Your task to perform on an android device: delete the emails in spam in the gmail app Image 0: 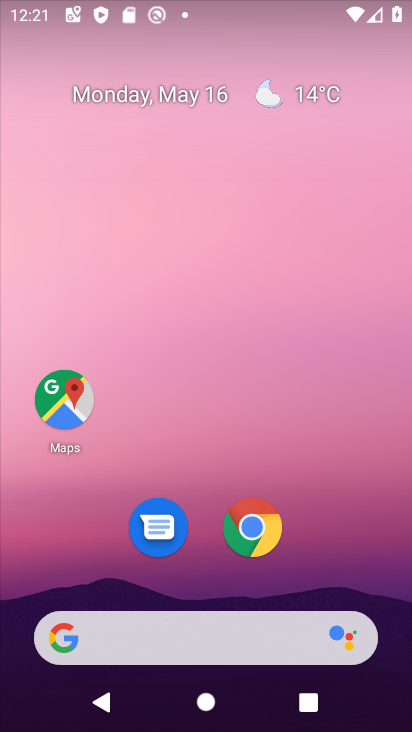
Step 0: drag from (200, 594) to (248, 184)
Your task to perform on an android device: delete the emails in spam in the gmail app Image 1: 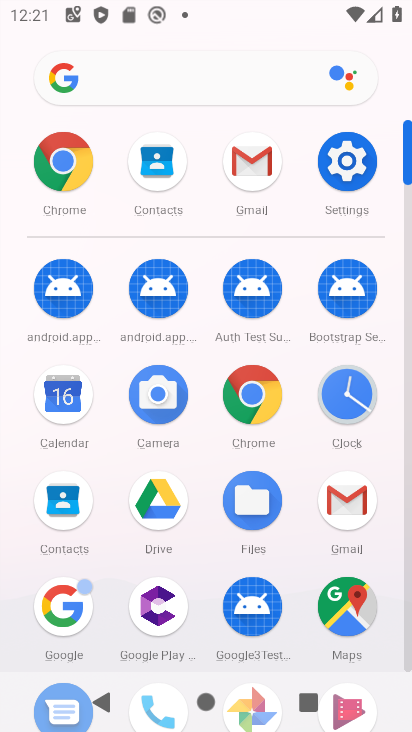
Step 1: click (347, 505)
Your task to perform on an android device: delete the emails in spam in the gmail app Image 2: 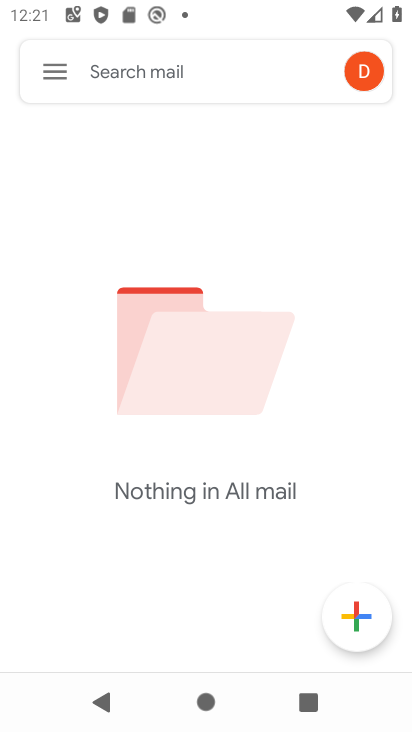
Step 2: click (51, 58)
Your task to perform on an android device: delete the emails in spam in the gmail app Image 3: 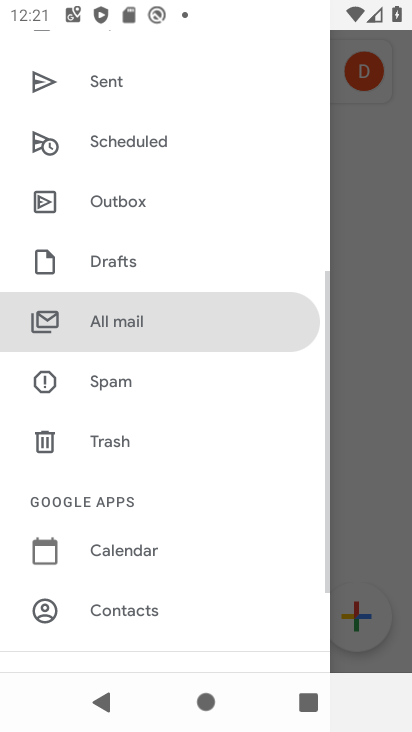
Step 3: click (127, 386)
Your task to perform on an android device: delete the emails in spam in the gmail app Image 4: 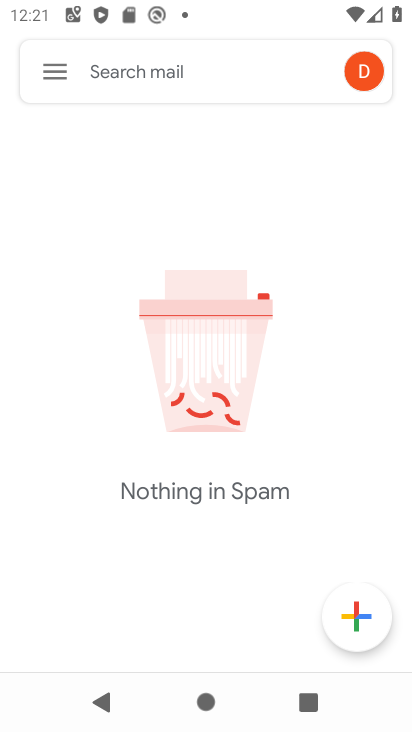
Step 4: task complete